Your task to perform on an android device: Open accessibility settings Image 0: 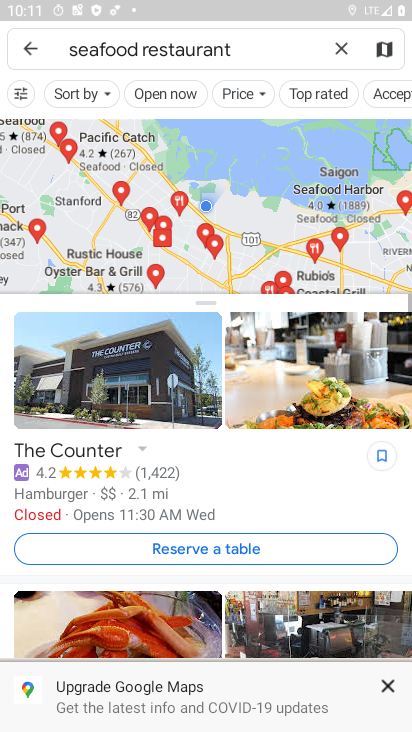
Step 0: press home button
Your task to perform on an android device: Open accessibility settings Image 1: 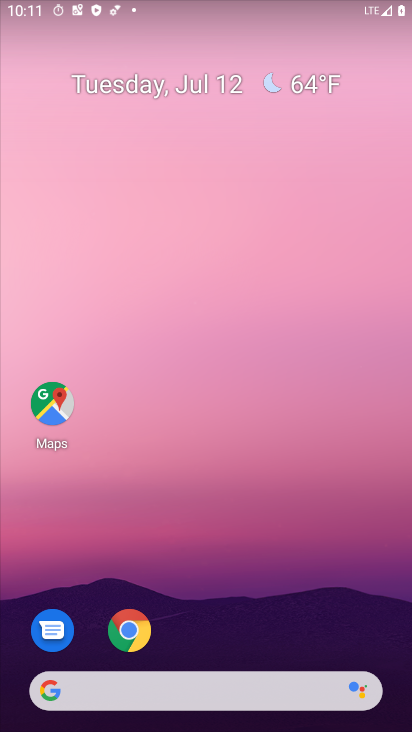
Step 1: drag from (334, 689) to (348, 141)
Your task to perform on an android device: Open accessibility settings Image 2: 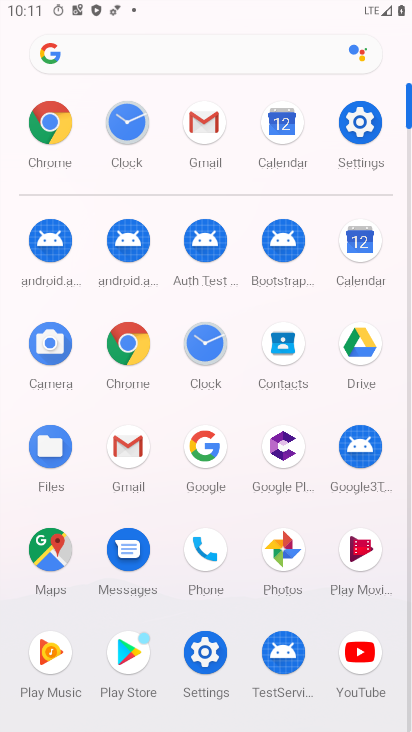
Step 2: click (382, 114)
Your task to perform on an android device: Open accessibility settings Image 3: 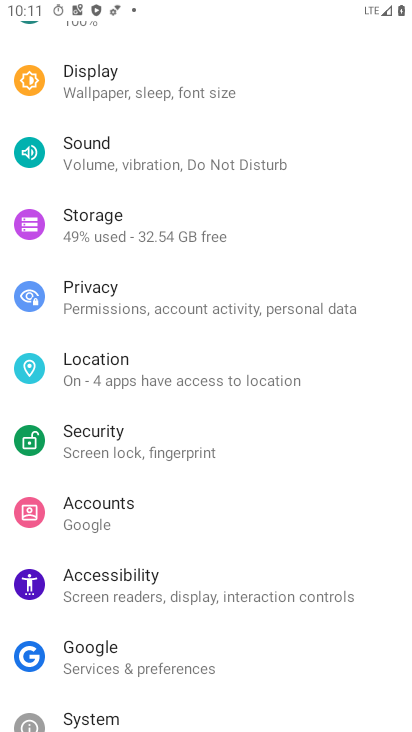
Step 3: click (230, 601)
Your task to perform on an android device: Open accessibility settings Image 4: 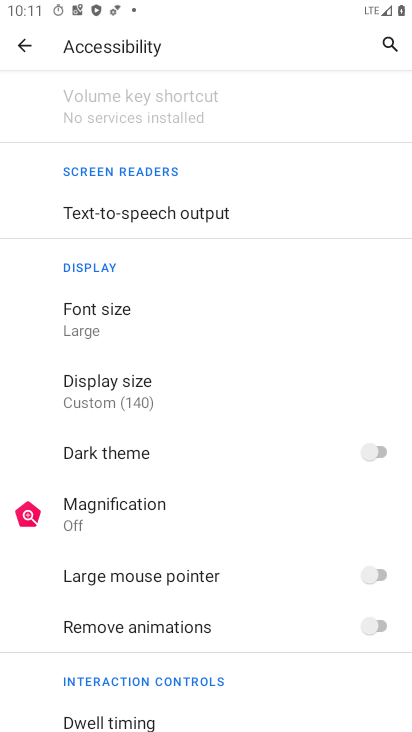
Step 4: task complete